Your task to perform on an android device: open chrome and create a bookmark for the current page Image 0: 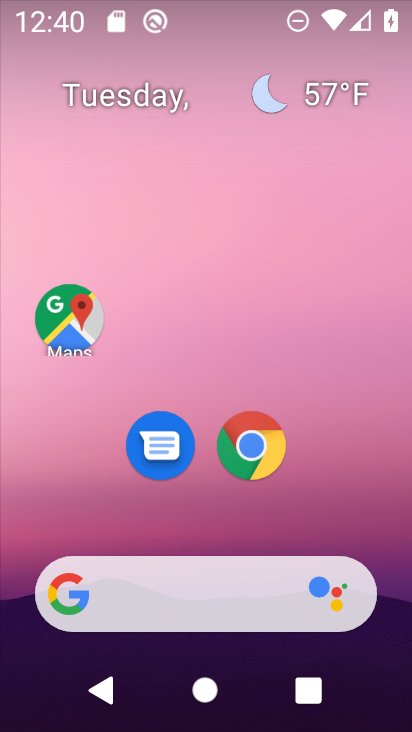
Step 0: drag from (378, 523) to (353, 267)
Your task to perform on an android device: open chrome and create a bookmark for the current page Image 1: 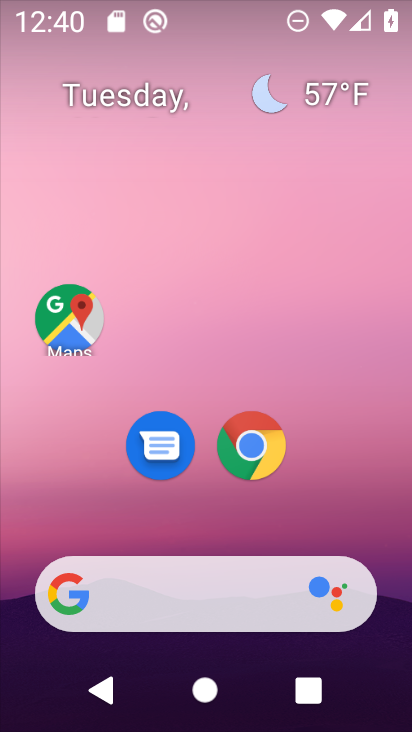
Step 1: drag from (393, 537) to (389, 259)
Your task to perform on an android device: open chrome and create a bookmark for the current page Image 2: 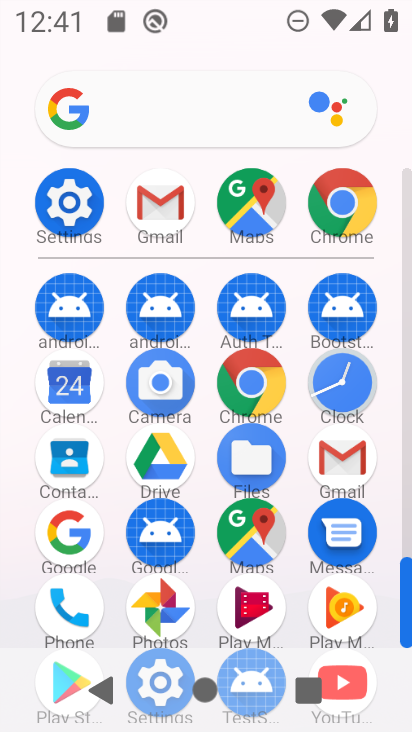
Step 2: click (268, 388)
Your task to perform on an android device: open chrome and create a bookmark for the current page Image 3: 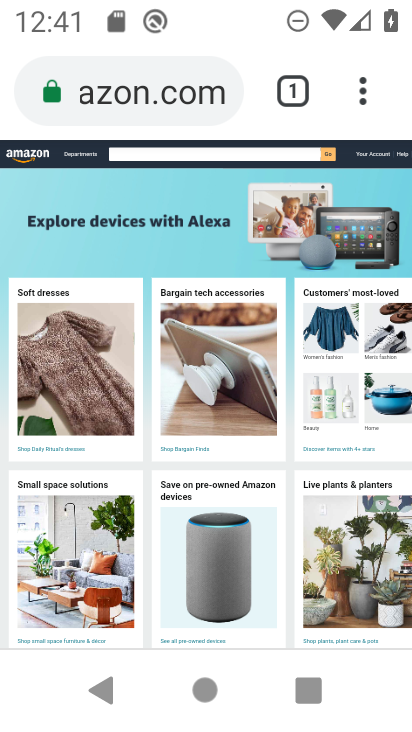
Step 3: click (362, 103)
Your task to perform on an android device: open chrome and create a bookmark for the current page Image 4: 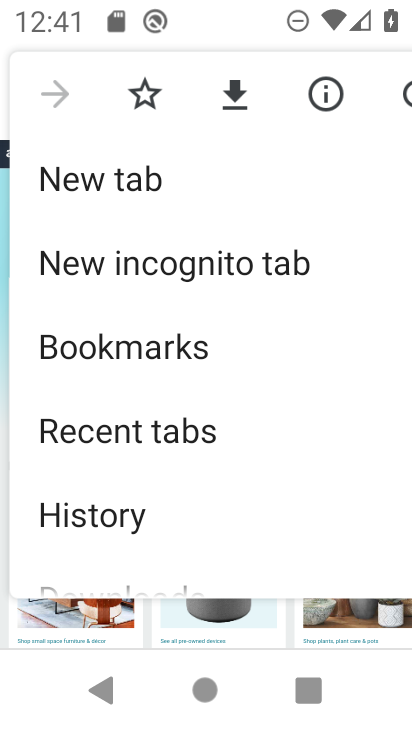
Step 4: click (150, 106)
Your task to perform on an android device: open chrome and create a bookmark for the current page Image 5: 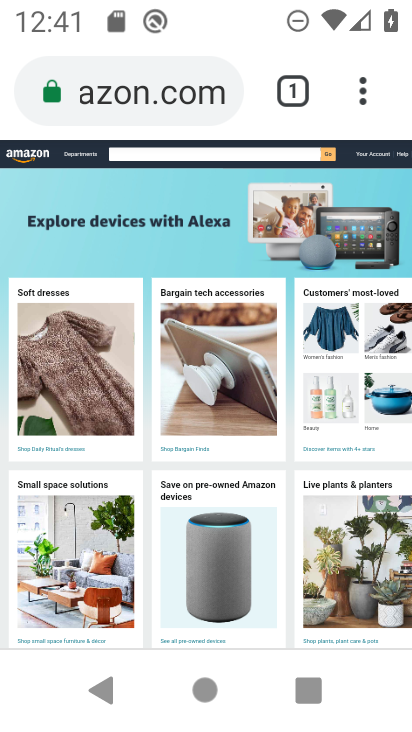
Step 5: task complete